Your task to perform on an android device: manage bookmarks in the chrome app Image 0: 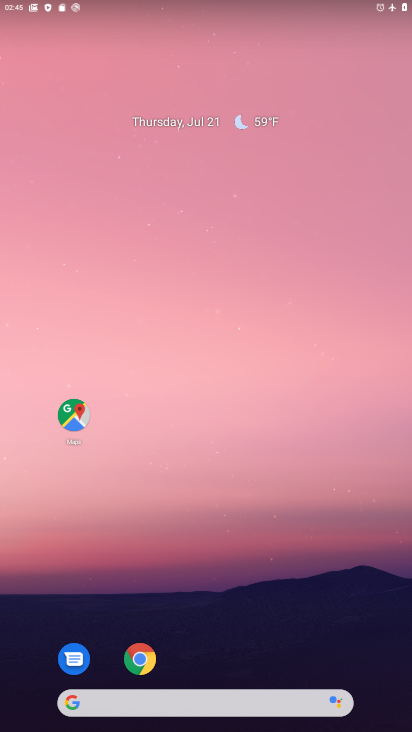
Step 0: drag from (290, 628) to (236, 150)
Your task to perform on an android device: manage bookmarks in the chrome app Image 1: 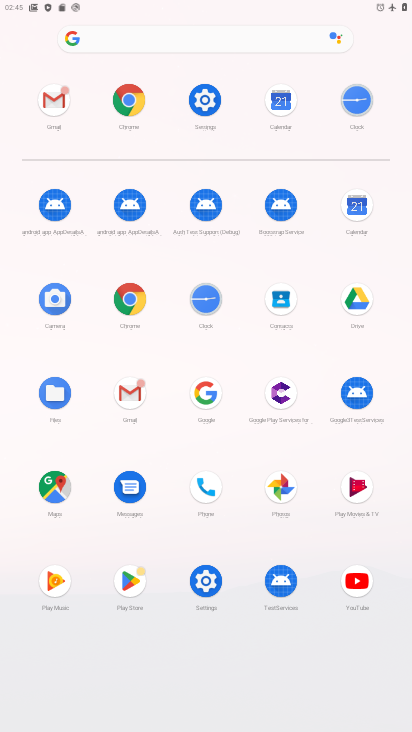
Step 1: click (127, 292)
Your task to perform on an android device: manage bookmarks in the chrome app Image 2: 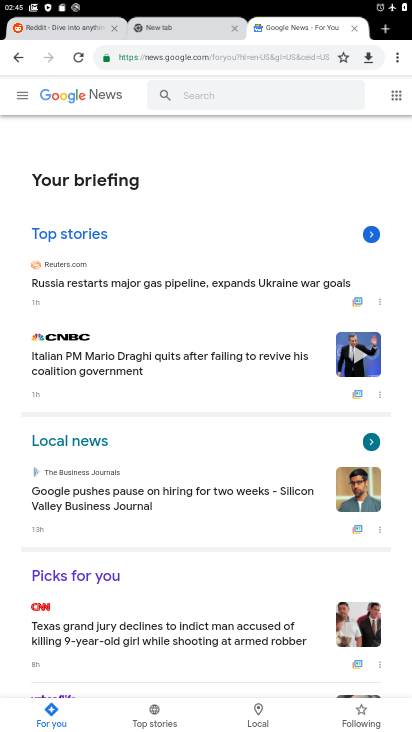
Step 2: drag from (398, 55) to (281, 118)
Your task to perform on an android device: manage bookmarks in the chrome app Image 3: 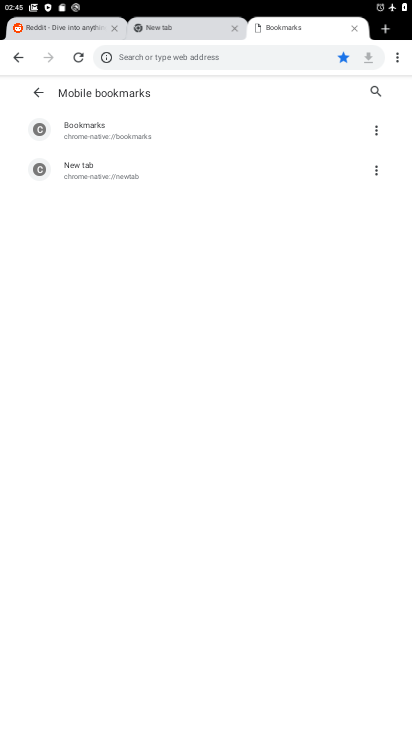
Step 3: click (377, 168)
Your task to perform on an android device: manage bookmarks in the chrome app Image 4: 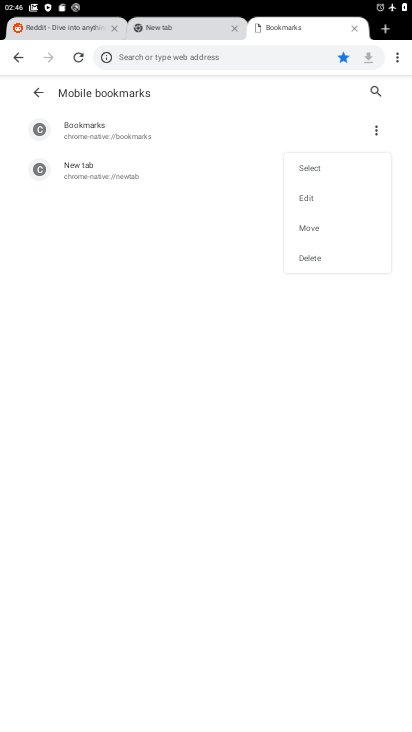
Step 4: click (324, 257)
Your task to perform on an android device: manage bookmarks in the chrome app Image 5: 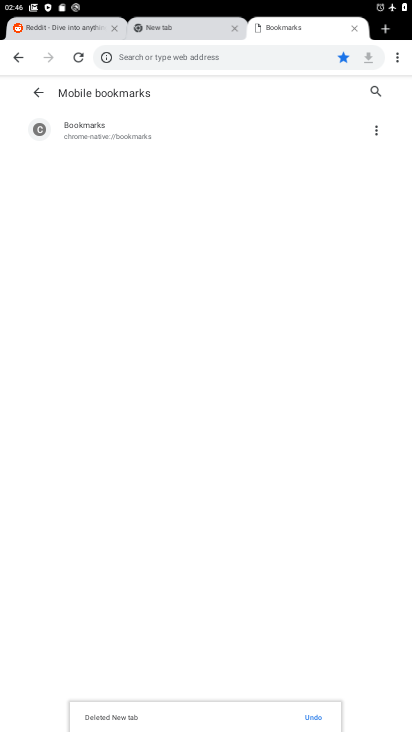
Step 5: task complete